Your task to perform on an android device: Open the web browser Image 0: 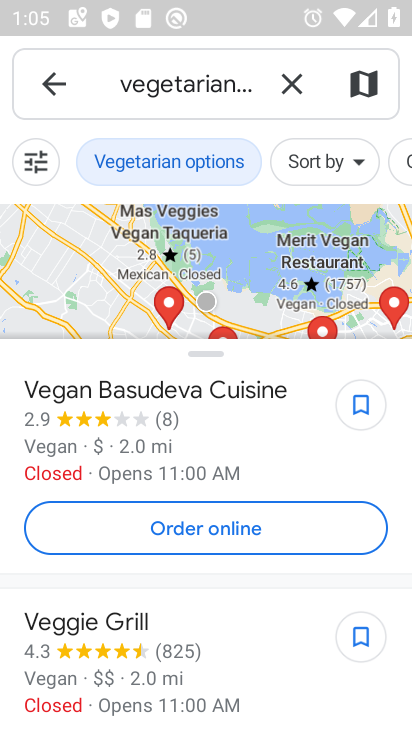
Step 0: press home button
Your task to perform on an android device: Open the web browser Image 1: 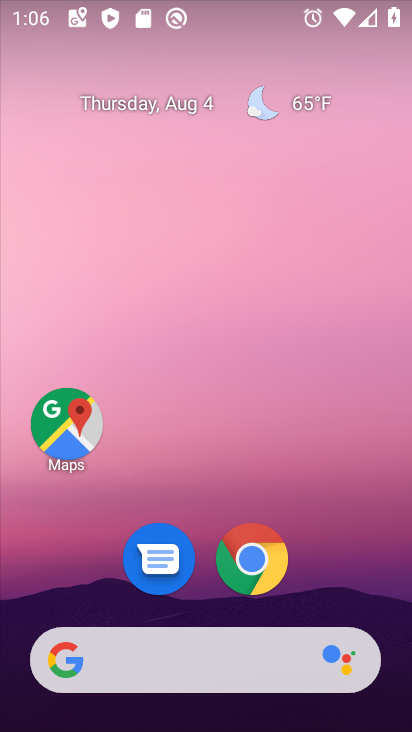
Step 1: click (251, 560)
Your task to perform on an android device: Open the web browser Image 2: 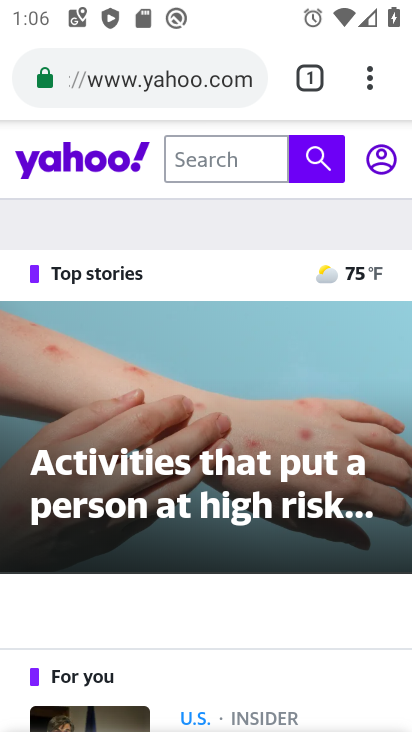
Step 2: task complete